Your task to perform on an android device: Go to ESPN.com Image 0: 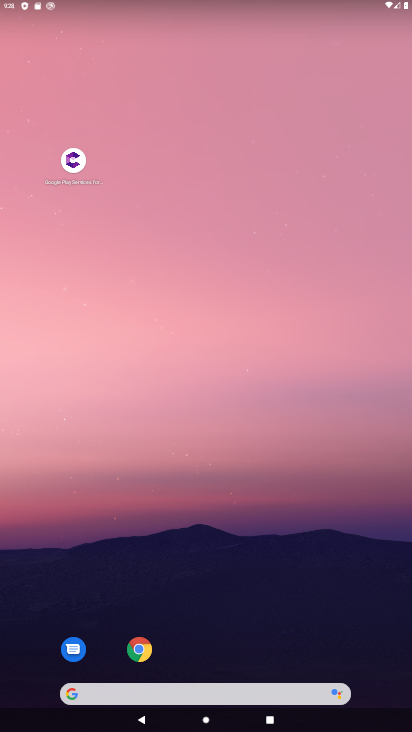
Step 0: click (142, 654)
Your task to perform on an android device: Go to ESPN.com Image 1: 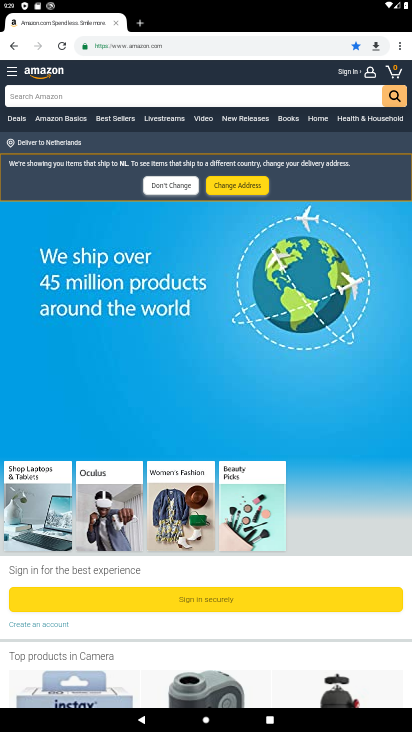
Step 1: click (198, 34)
Your task to perform on an android device: Go to ESPN.com Image 2: 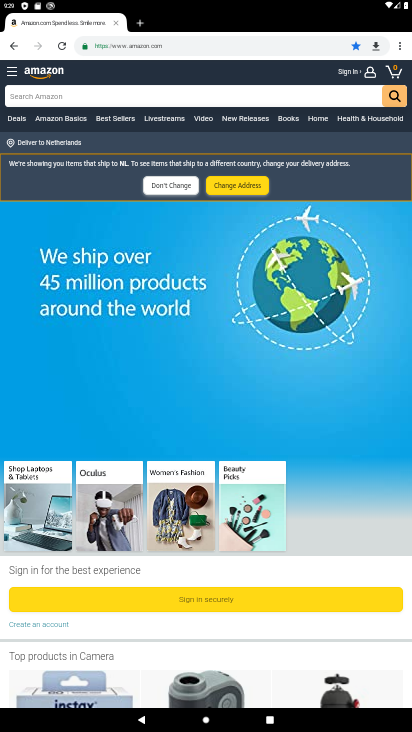
Step 2: click (231, 47)
Your task to perform on an android device: Go to ESPN.com Image 3: 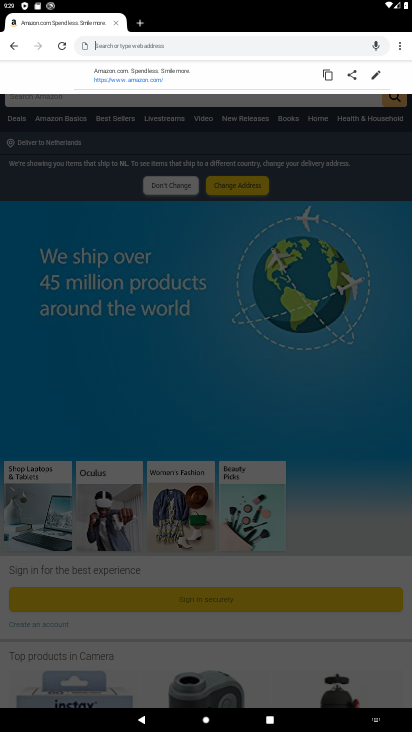
Step 3: type "ESPN.com"
Your task to perform on an android device: Go to ESPN.com Image 4: 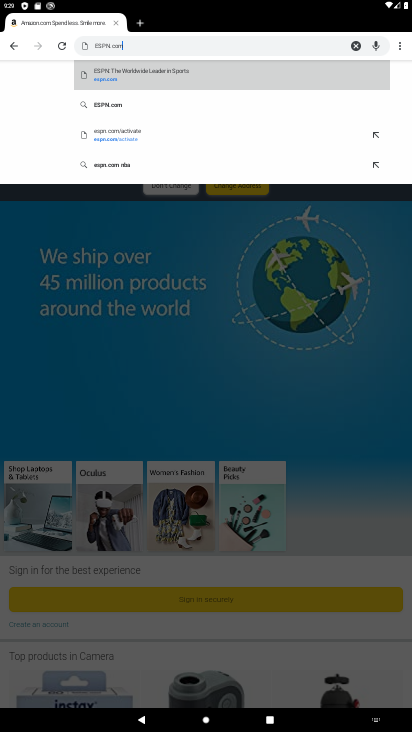
Step 4: click (182, 75)
Your task to perform on an android device: Go to ESPN.com Image 5: 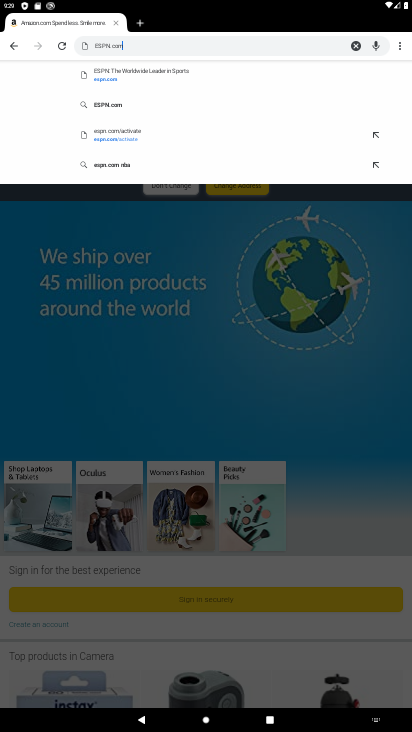
Step 5: click (126, 81)
Your task to perform on an android device: Go to ESPN.com Image 6: 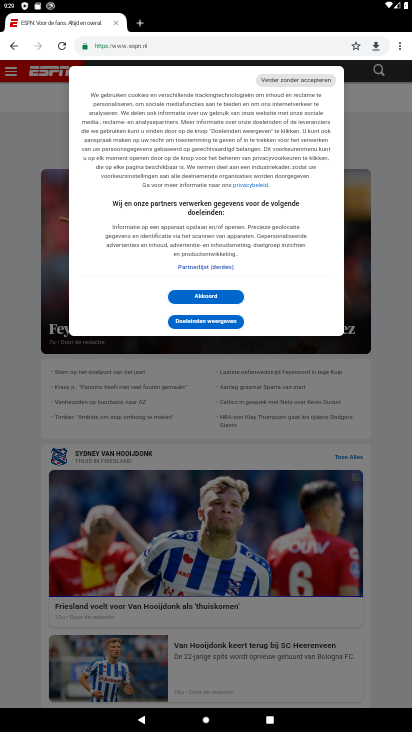
Step 6: task complete